Your task to perform on an android device: turn on translation in the chrome app Image 0: 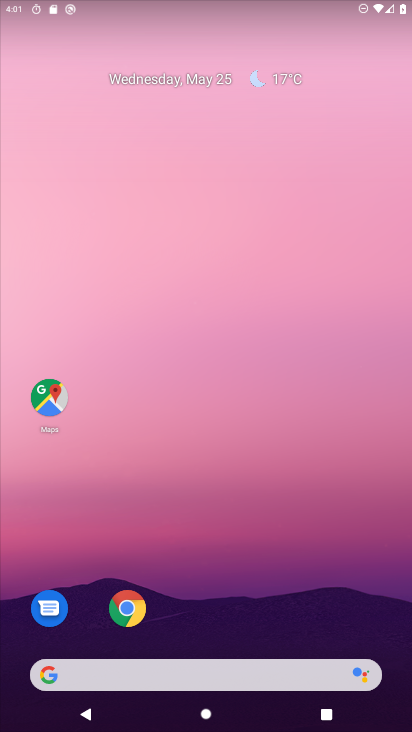
Step 0: click (126, 605)
Your task to perform on an android device: turn on translation in the chrome app Image 1: 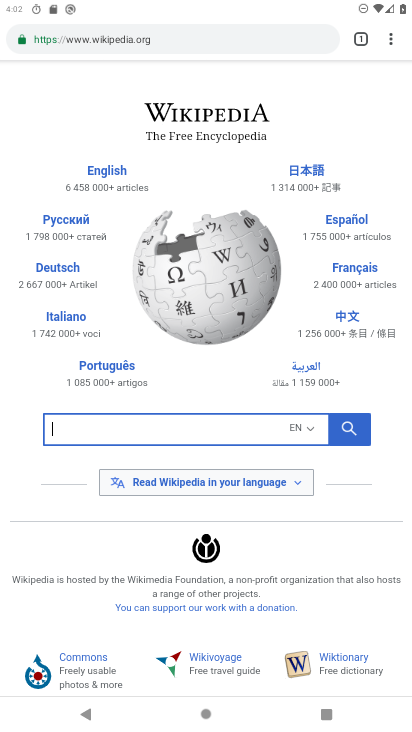
Step 1: drag from (391, 29) to (247, 478)
Your task to perform on an android device: turn on translation in the chrome app Image 2: 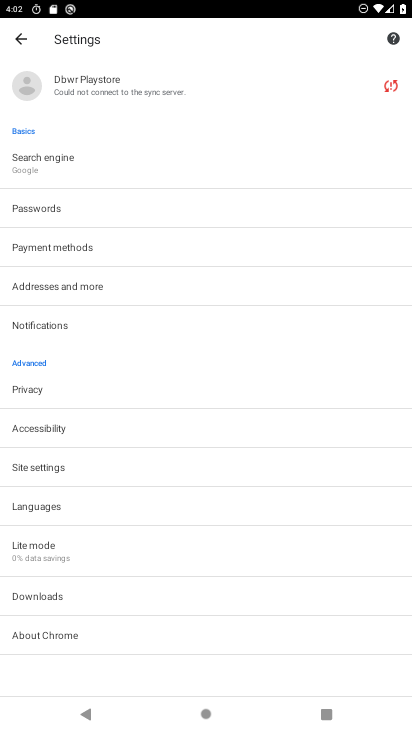
Step 2: click (42, 509)
Your task to perform on an android device: turn on translation in the chrome app Image 3: 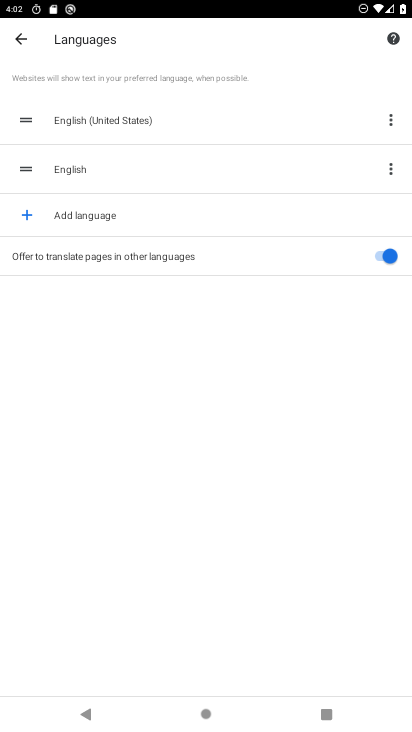
Step 3: task complete